Your task to perform on an android device: Open CNN.com Image 0: 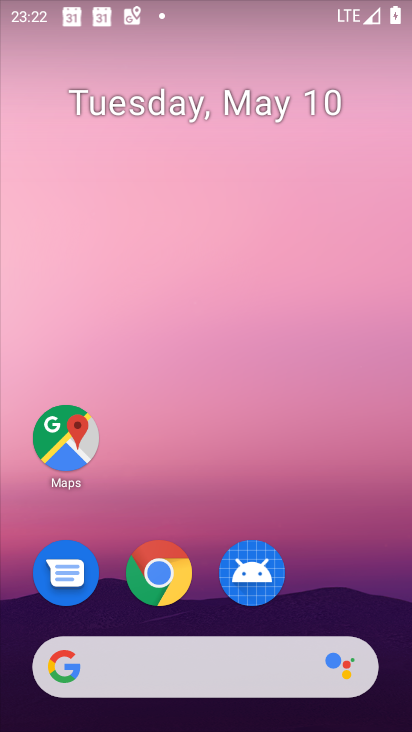
Step 0: click (169, 575)
Your task to perform on an android device: Open CNN.com Image 1: 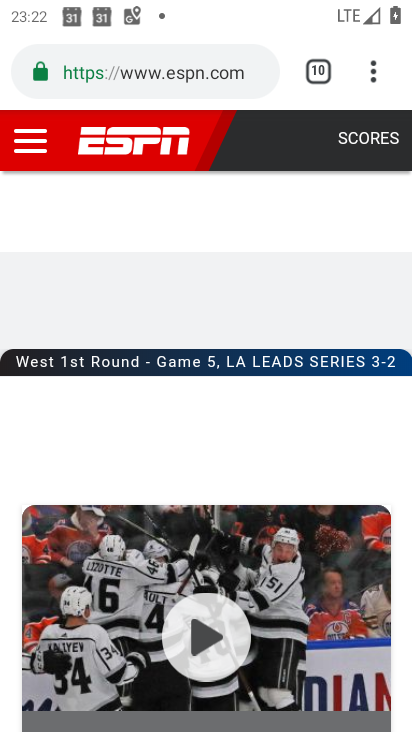
Step 1: click (372, 70)
Your task to perform on an android device: Open CNN.com Image 2: 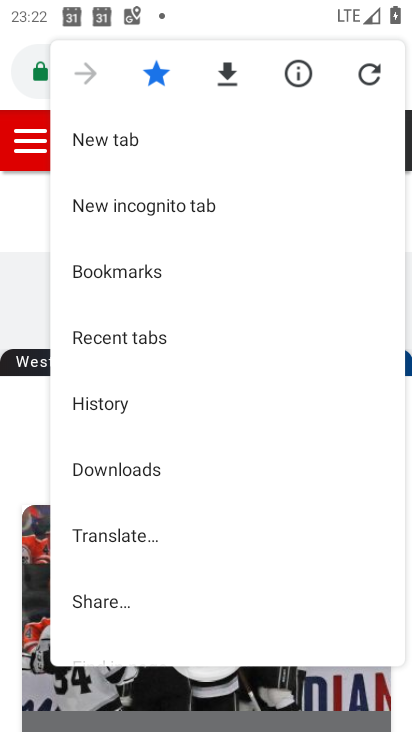
Step 2: click (96, 139)
Your task to perform on an android device: Open CNN.com Image 3: 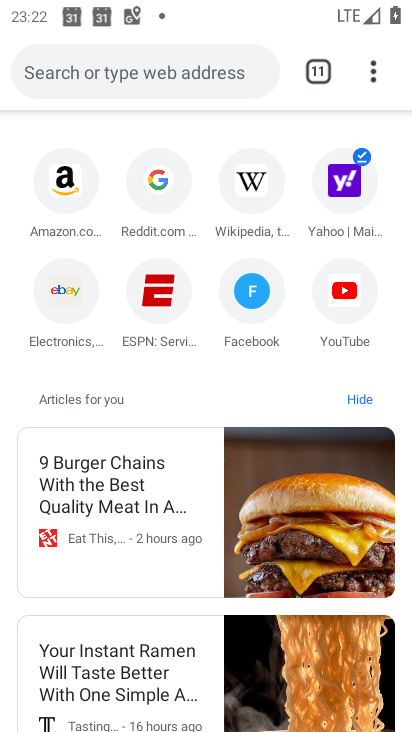
Step 3: click (111, 69)
Your task to perform on an android device: Open CNN.com Image 4: 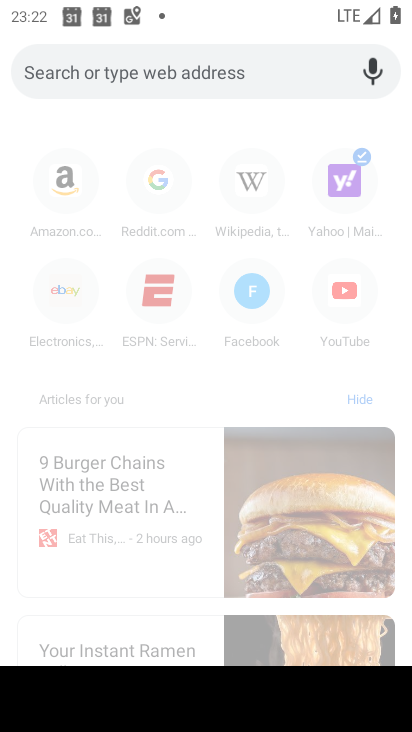
Step 4: type "cnn.com"
Your task to perform on an android device: Open CNN.com Image 5: 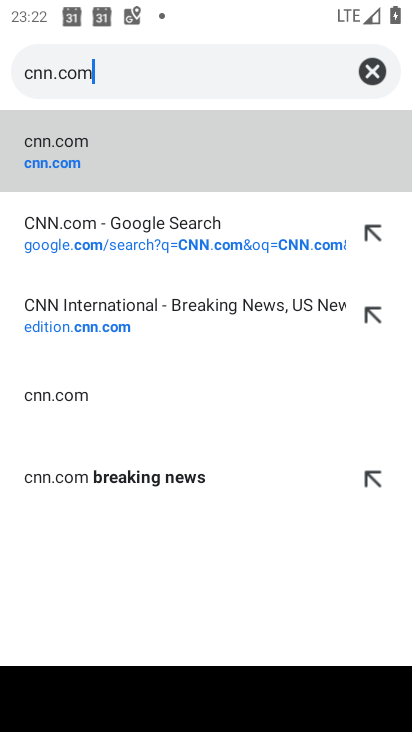
Step 5: click (57, 134)
Your task to perform on an android device: Open CNN.com Image 6: 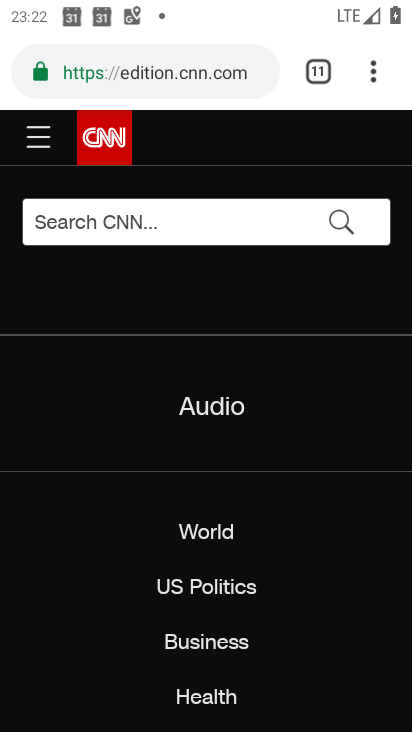
Step 6: task complete